Your task to perform on an android device: check the backup settings in the google photos Image 0: 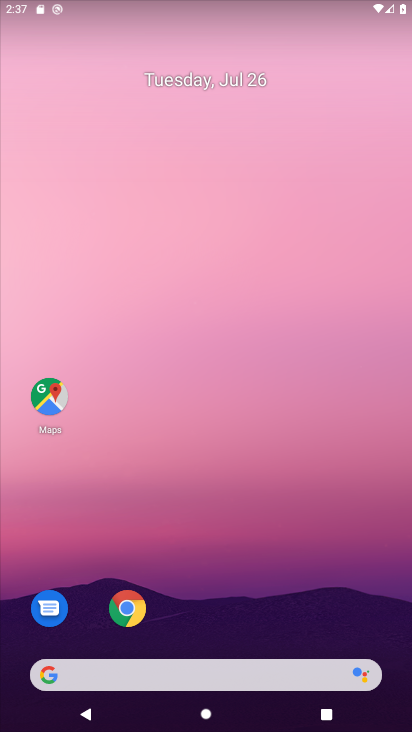
Step 0: drag from (288, 571) to (201, 64)
Your task to perform on an android device: check the backup settings in the google photos Image 1: 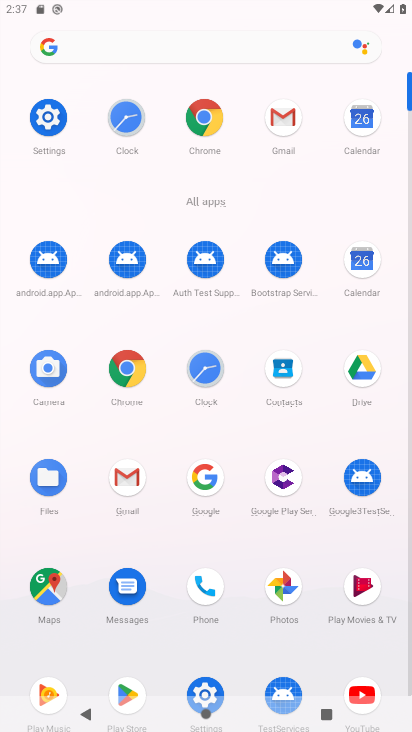
Step 1: click (272, 578)
Your task to perform on an android device: check the backup settings in the google photos Image 2: 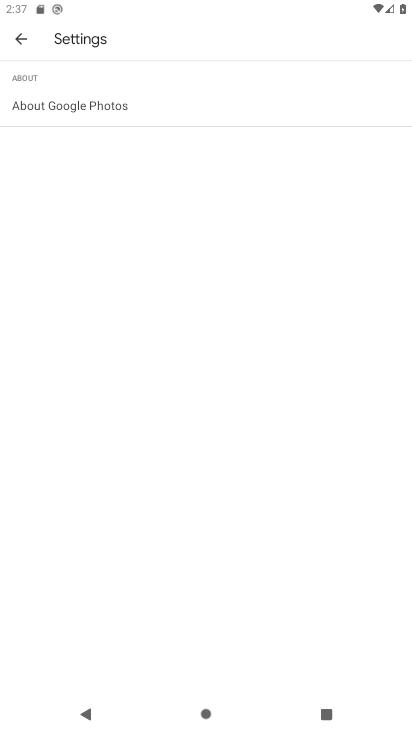
Step 2: click (25, 43)
Your task to perform on an android device: check the backup settings in the google photos Image 3: 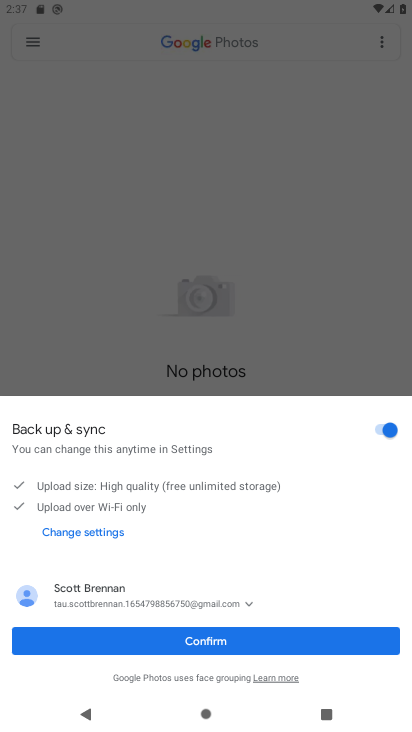
Step 3: click (223, 634)
Your task to perform on an android device: check the backup settings in the google photos Image 4: 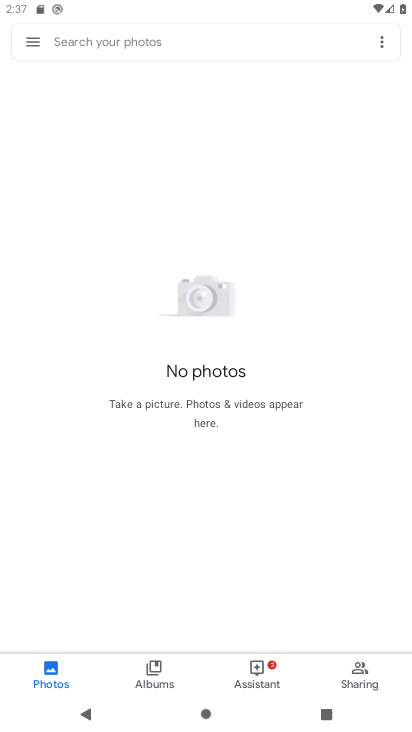
Step 4: click (28, 44)
Your task to perform on an android device: check the backup settings in the google photos Image 5: 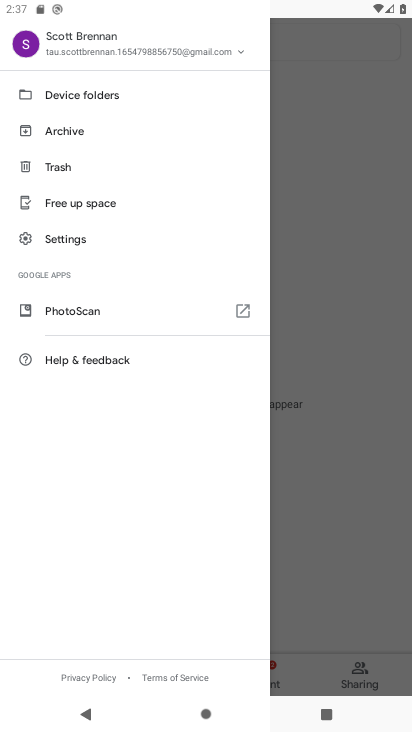
Step 5: click (47, 233)
Your task to perform on an android device: check the backup settings in the google photos Image 6: 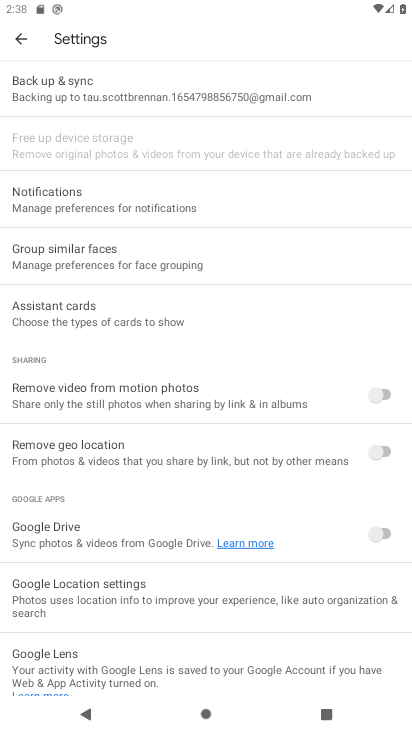
Step 6: click (189, 88)
Your task to perform on an android device: check the backup settings in the google photos Image 7: 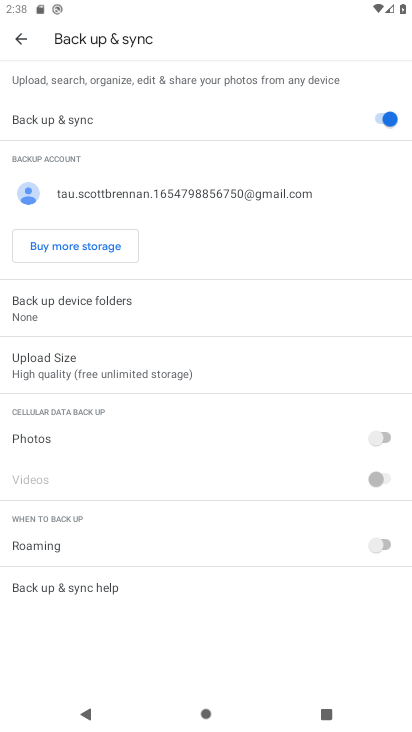
Step 7: task complete